Your task to perform on an android device: Open Youtube and go to "Your channel" Image 0: 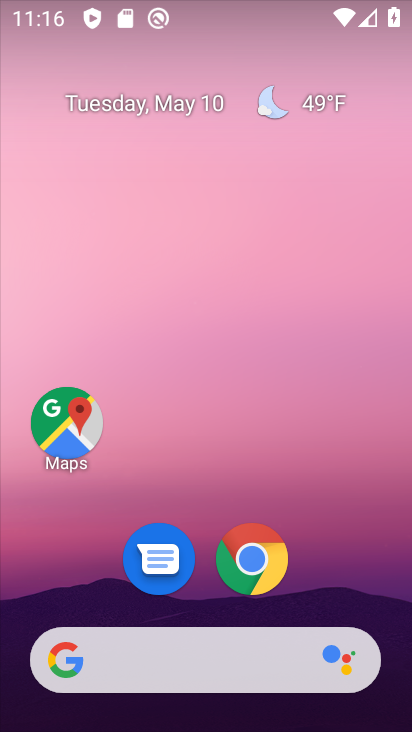
Step 0: drag from (137, 617) to (267, 18)
Your task to perform on an android device: Open Youtube and go to "Your channel" Image 1: 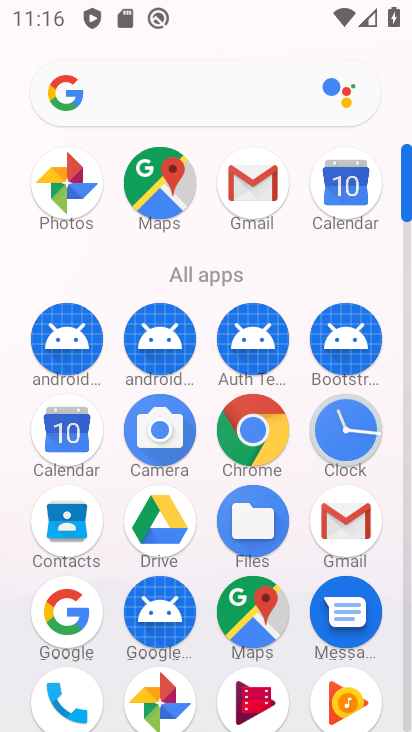
Step 1: drag from (218, 672) to (282, 369)
Your task to perform on an android device: Open Youtube and go to "Your channel" Image 2: 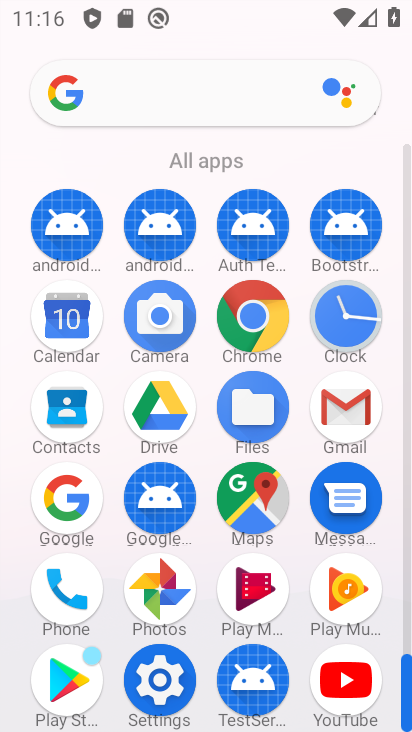
Step 2: click (342, 661)
Your task to perform on an android device: Open Youtube and go to "Your channel" Image 3: 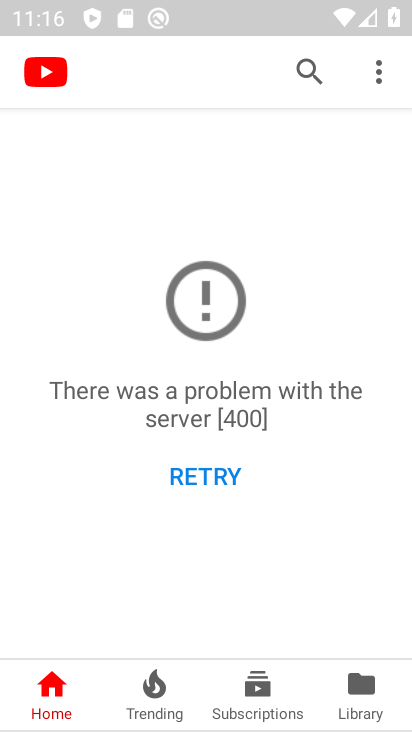
Step 3: click (383, 84)
Your task to perform on an android device: Open Youtube and go to "Your channel" Image 4: 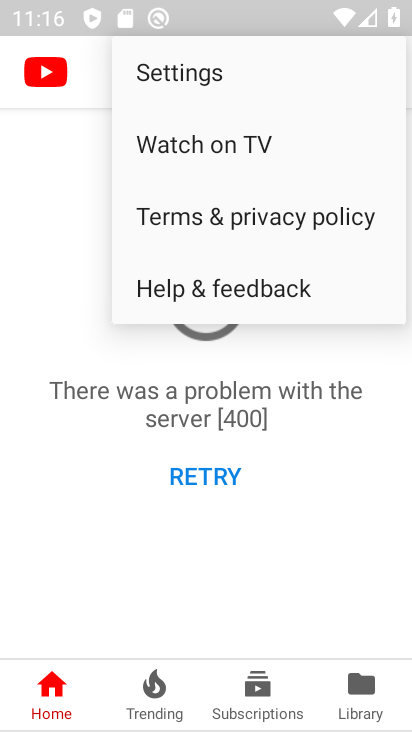
Step 4: task complete